Your task to perform on an android device: check the backup settings in the google photos Image 0: 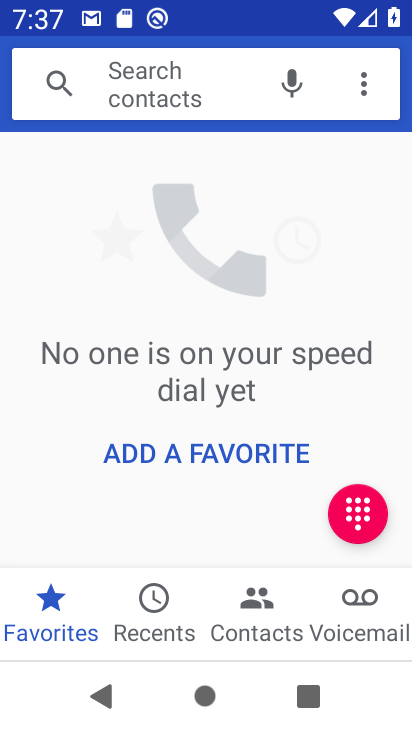
Step 0: press home button
Your task to perform on an android device: check the backup settings in the google photos Image 1: 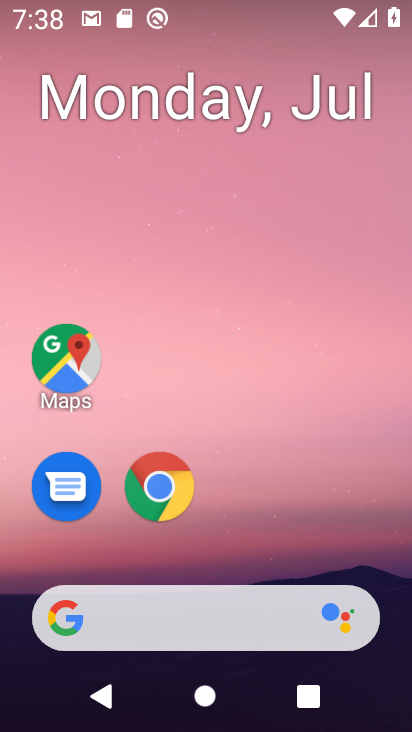
Step 1: drag from (339, 516) to (331, 163)
Your task to perform on an android device: check the backup settings in the google photos Image 2: 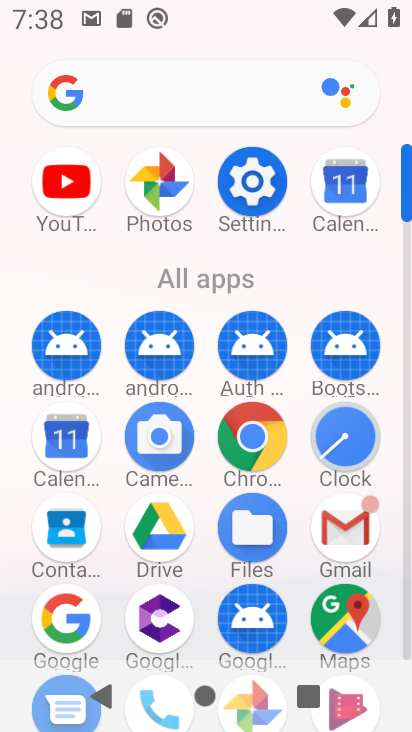
Step 2: drag from (388, 553) to (395, 269)
Your task to perform on an android device: check the backup settings in the google photos Image 3: 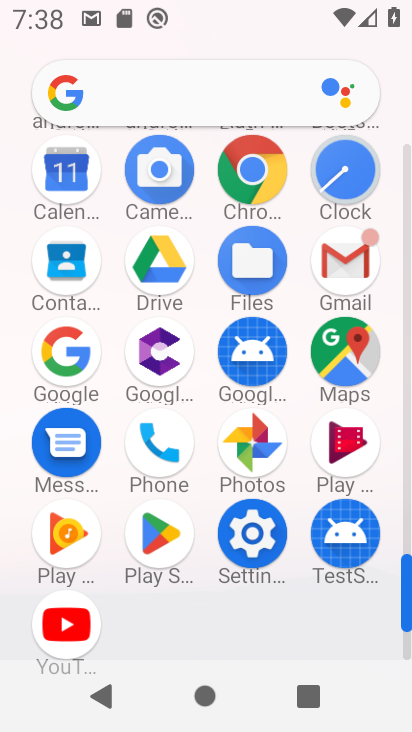
Step 3: click (254, 438)
Your task to perform on an android device: check the backup settings in the google photos Image 4: 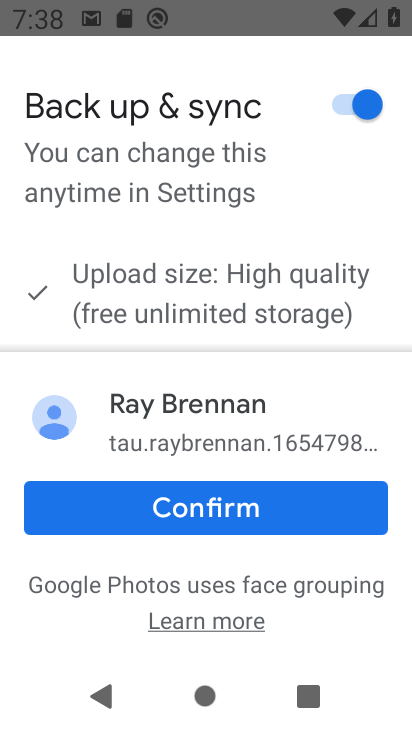
Step 4: click (216, 499)
Your task to perform on an android device: check the backup settings in the google photos Image 5: 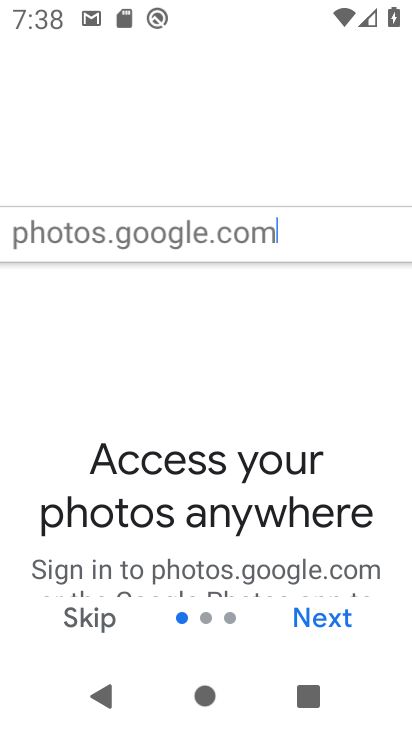
Step 5: click (319, 615)
Your task to perform on an android device: check the backup settings in the google photos Image 6: 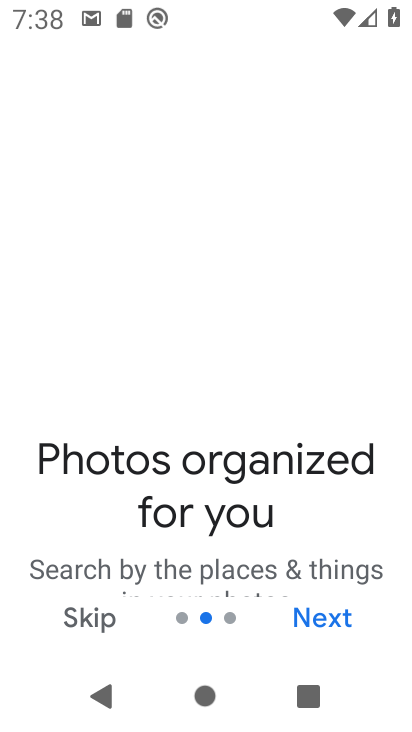
Step 6: click (319, 615)
Your task to perform on an android device: check the backup settings in the google photos Image 7: 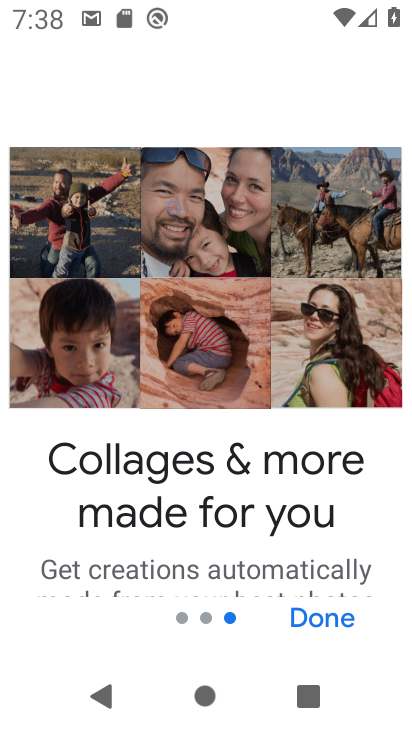
Step 7: click (319, 615)
Your task to perform on an android device: check the backup settings in the google photos Image 8: 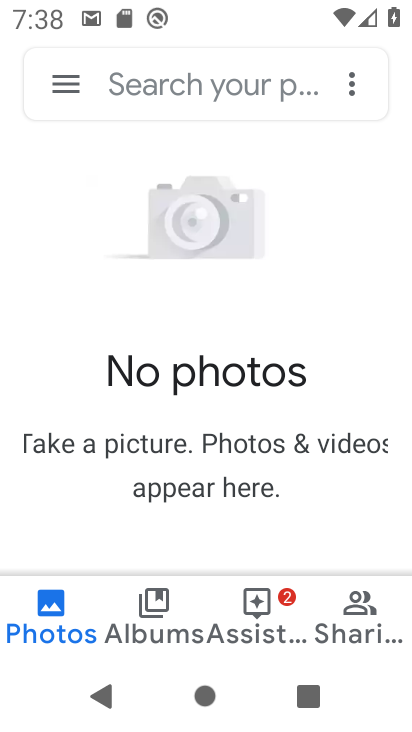
Step 8: click (75, 99)
Your task to perform on an android device: check the backup settings in the google photos Image 9: 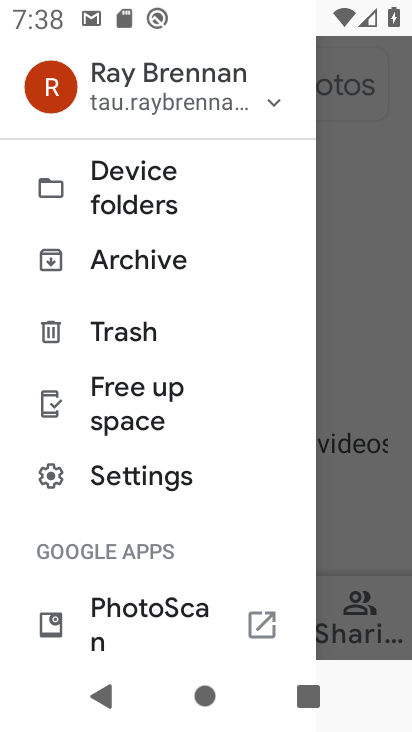
Step 9: click (187, 485)
Your task to perform on an android device: check the backup settings in the google photos Image 10: 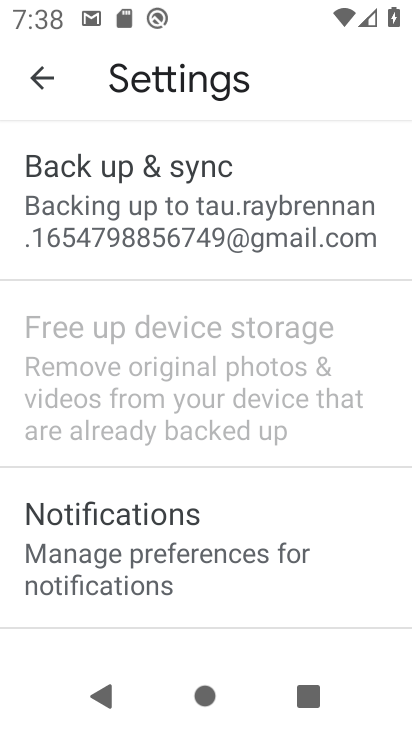
Step 10: click (264, 194)
Your task to perform on an android device: check the backup settings in the google photos Image 11: 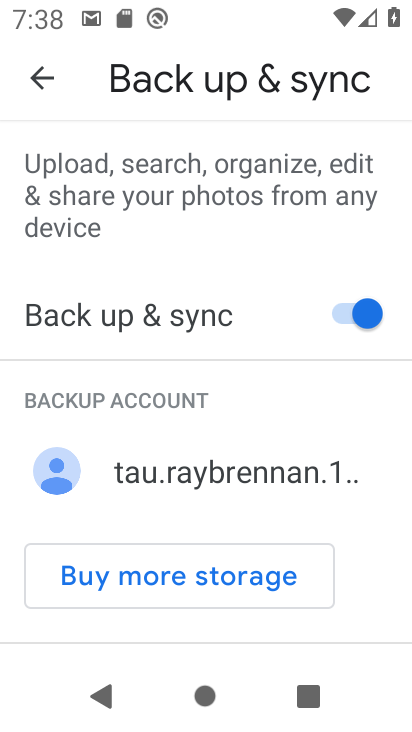
Step 11: task complete